Your task to perform on an android device: Open my contact list Image 0: 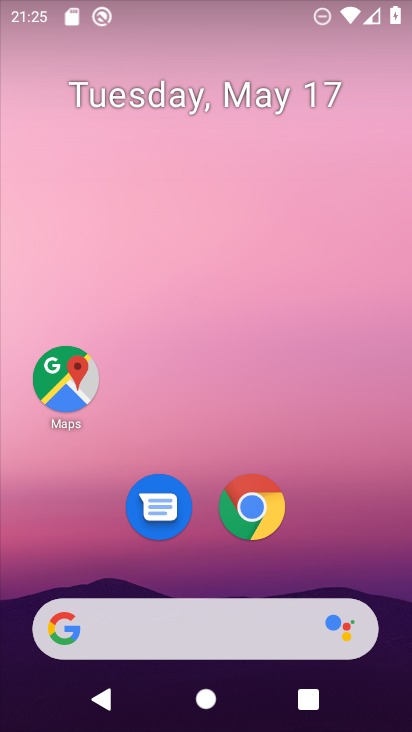
Step 0: drag from (386, 587) to (387, 6)
Your task to perform on an android device: Open my contact list Image 1: 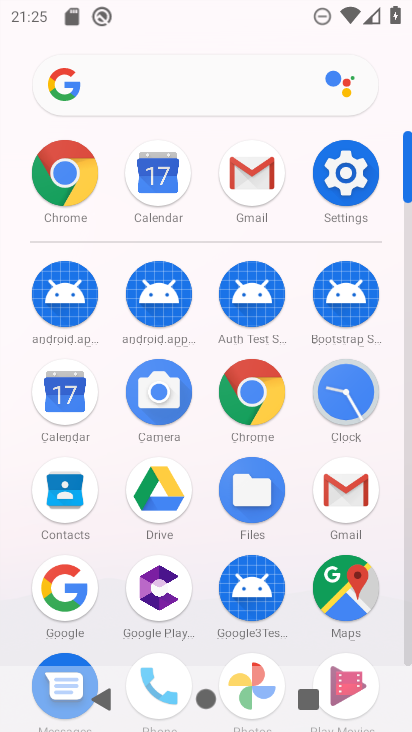
Step 1: click (58, 492)
Your task to perform on an android device: Open my contact list Image 2: 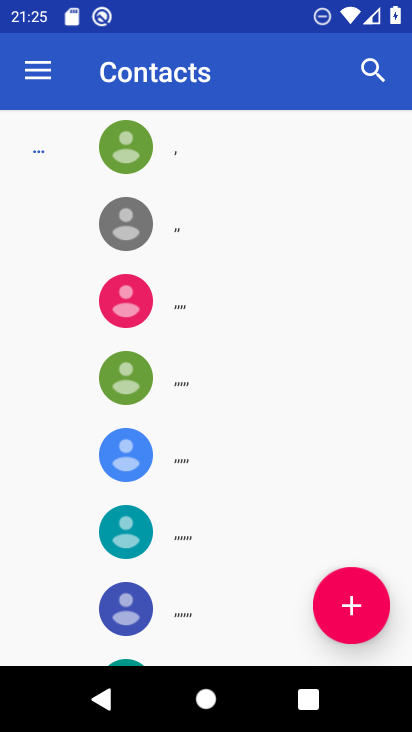
Step 2: task complete